Your task to perform on an android device: Open Google Chrome and click the shortcut for Amazon.com Image 0: 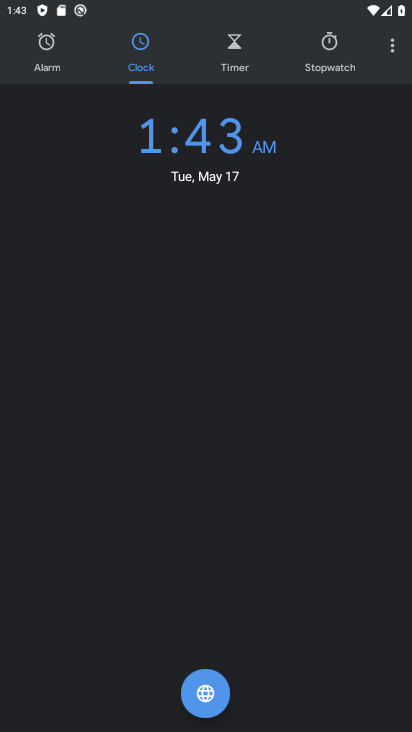
Step 0: press home button
Your task to perform on an android device: Open Google Chrome and click the shortcut for Amazon.com Image 1: 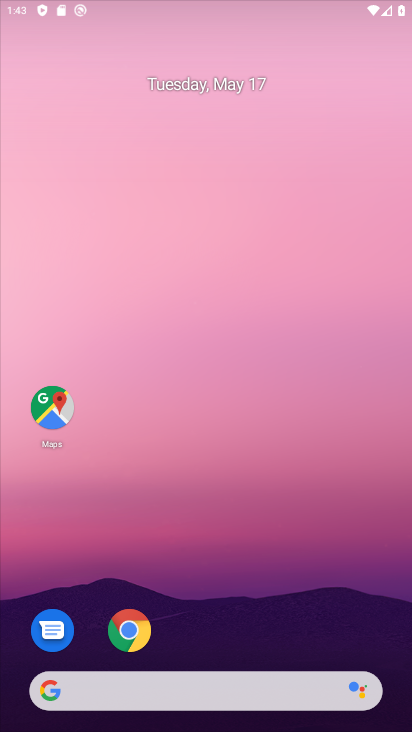
Step 1: drag from (323, 584) to (253, 2)
Your task to perform on an android device: Open Google Chrome and click the shortcut for Amazon.com Image 2: 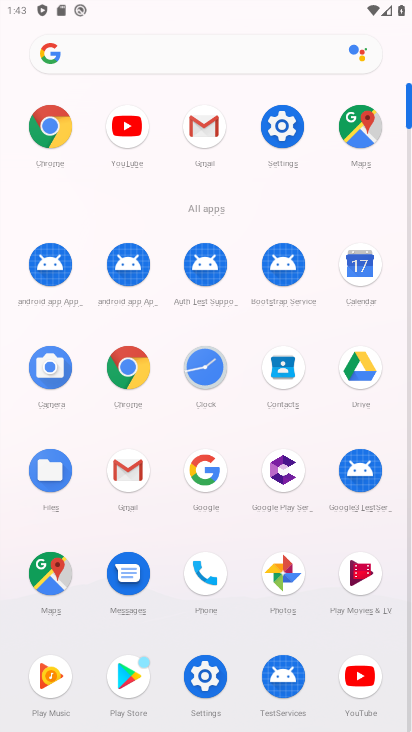
Step 2: click (132, 342)
Your task to perform on an android device: Open Google Chrome and click the shortcut for Amazon.com Image 3: 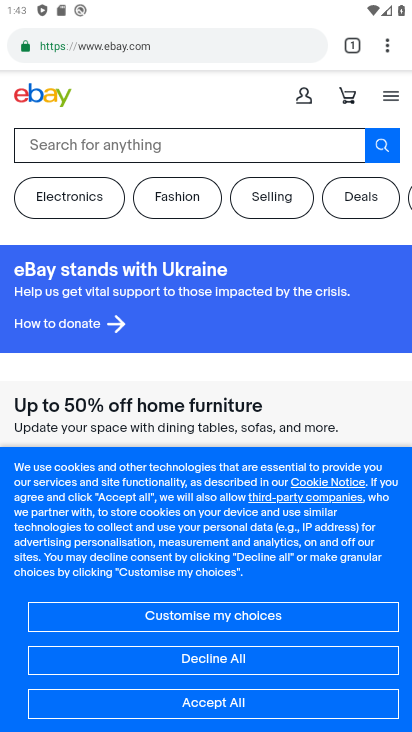
Step 3: click (348, 40)
Your task to perform on an android device: Open Google Chrome and click the shortcut for Amazon.com Image 4: 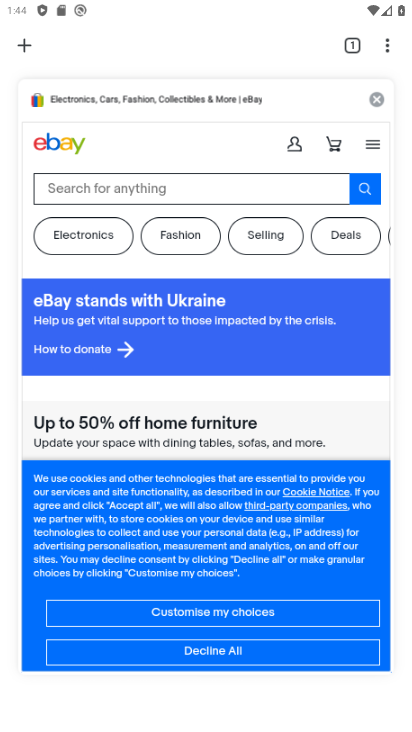
Step 4: click (25, 46)
Your task to perform on an android device: Open Google Chrome and click the shortcut for Amazon.com Image 5: 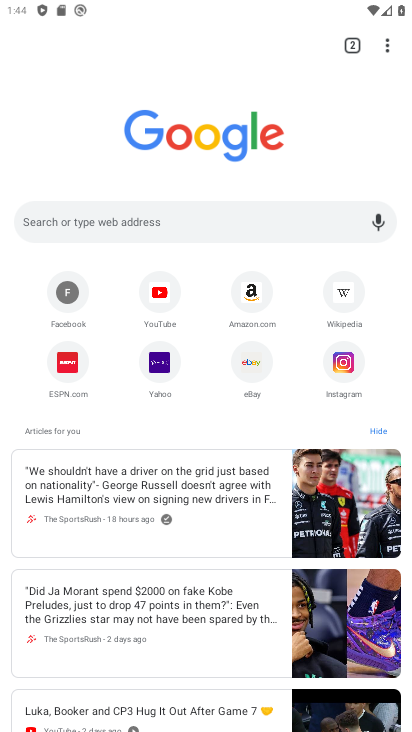
Step 5: click (266, 302)
Your task to perform on an android device: Open Google Chrome and click the shortcut for Amazon.com Image 6: 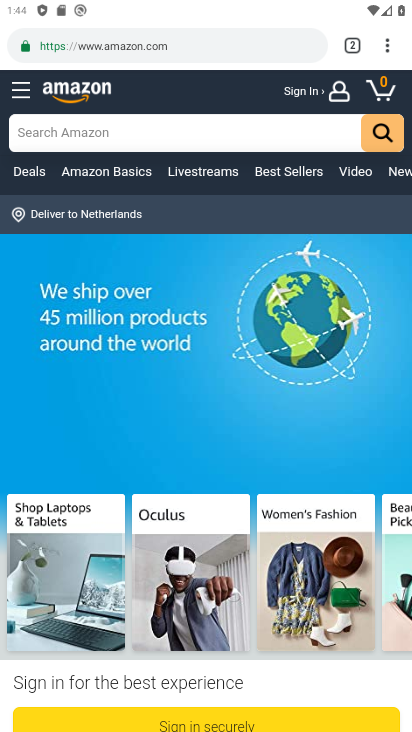
Step 6: task complete